Your task to perform on an android device: delete browsing data in the chrome app Image 0: 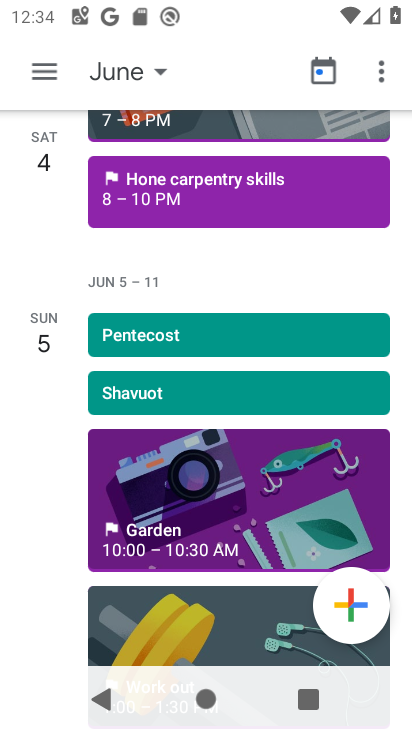
Step 0: press home button
Your task to perform on an android device: delete browsing data in the chrome app Image 1: 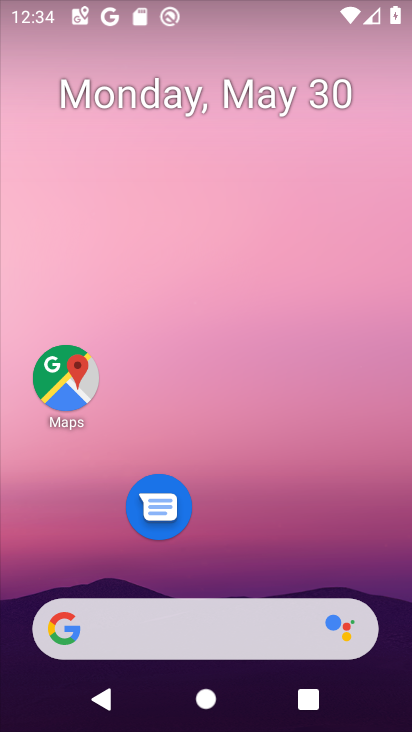
Step 1: drag from (293, 561) to (223, 67)
Your task to perform on an android device: delete browsing data in the chrome app Image 2: 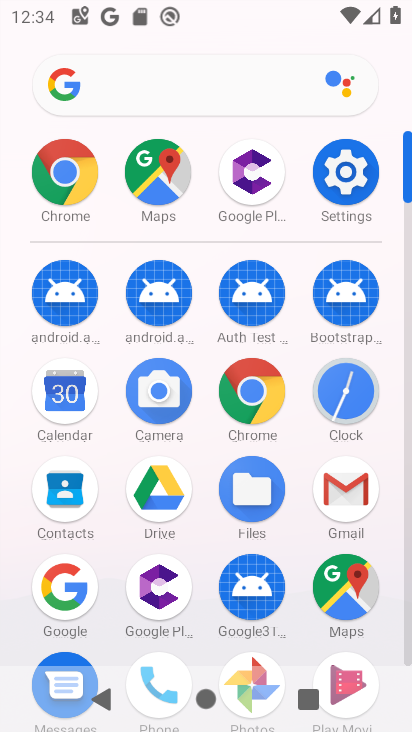
Step 2: click (248, 391)
Your task to perform on an android device: delete browsing data in the chrome app Image 3: 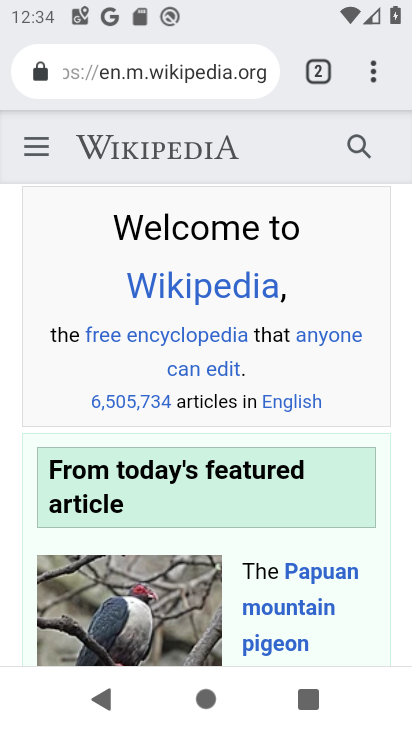
Step 3: drag from (369, 71) to (145, 491)
Your task to perform on an android device: delete browsing data in the chrome app Image 4: 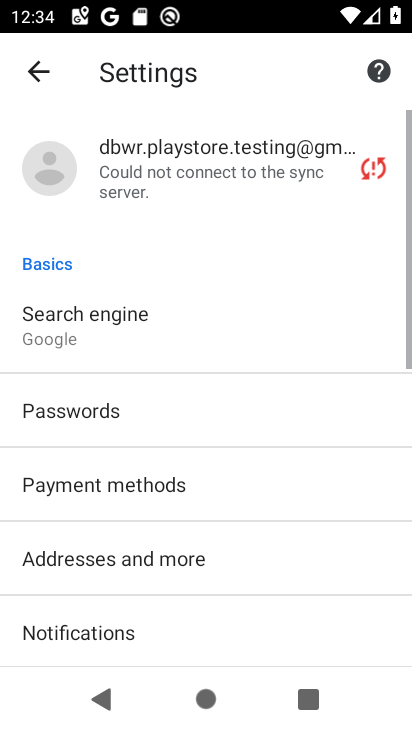
Step 4: drag from (246, 610) to (267, 170)
Your task to perform on an android device: delete browsing data in the chrome app Image 5: 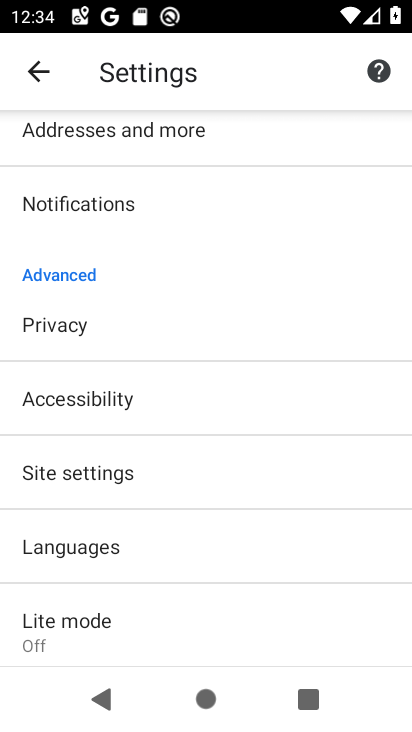
Step 5: click (52, 321)
Your task to perform on an android device: delete browsing data in the chrome app Image 6: 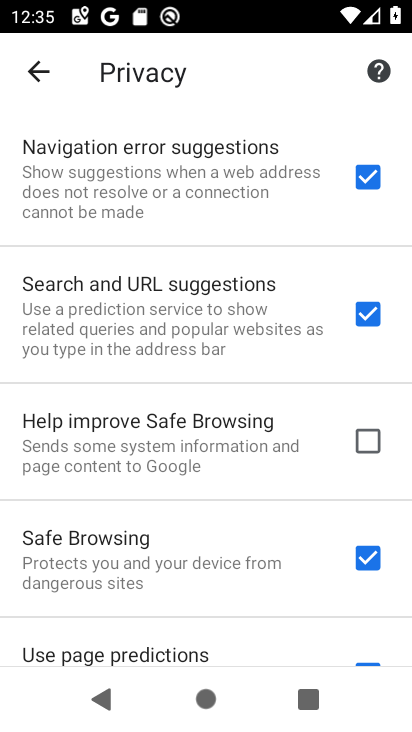
Step 6: drag from (203, 540) to (212, 105)
Your task to perform on an android device: delete browsing data in the chrome app Image 7: 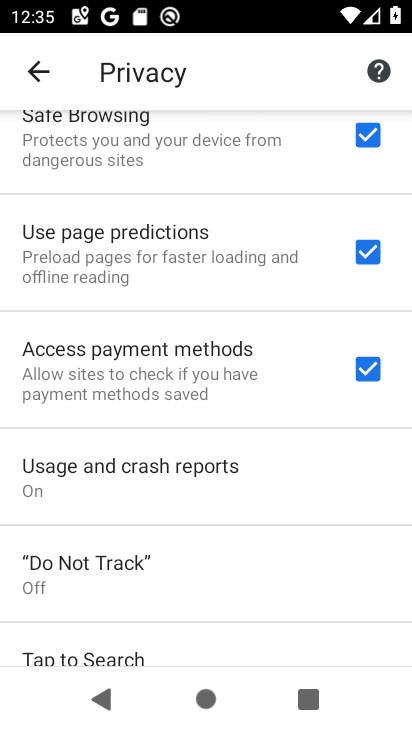
Step 7: drag from (198, 529) to (233, 83)
Your task to perform on an android device: delete browsing data in the chrome app Image 8: 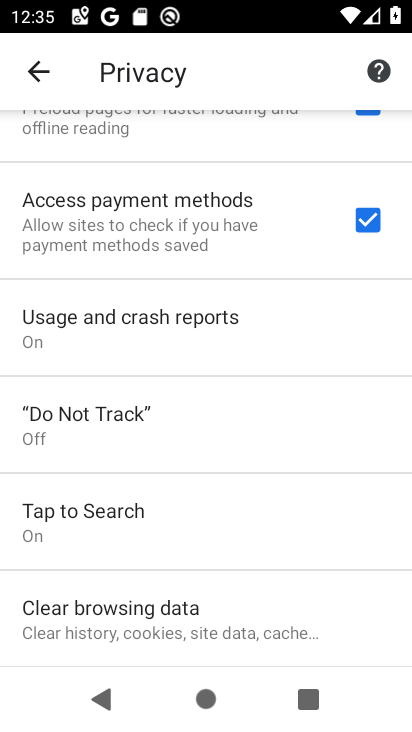
Step 8: click (165, 623)
Your task to perform on an android device: delete browsing data in the chrome app Image 9: 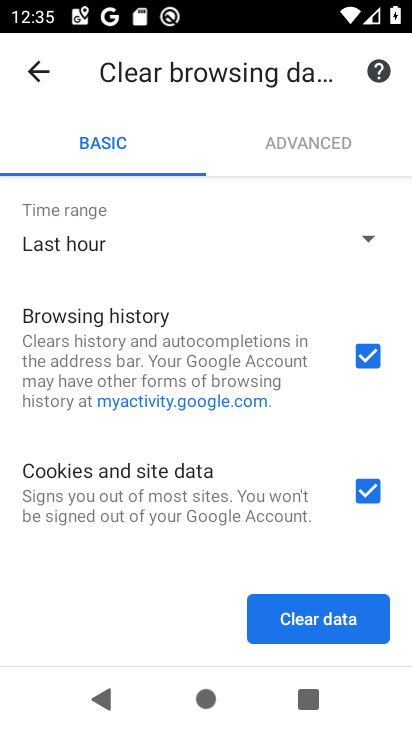
Step 9: click (333, 615)
Your task to perform on an android device: delete browsing data in the chrome app Image 10: 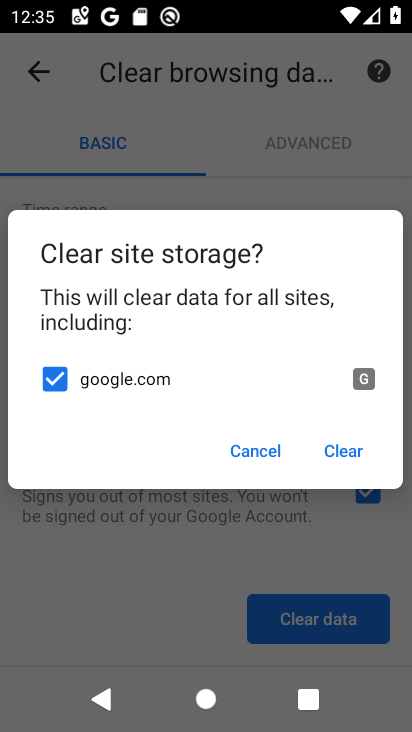
Step 10: click (336, 435)
Your task to perform on an android device: delete browsing data in the chrome app Image 11: 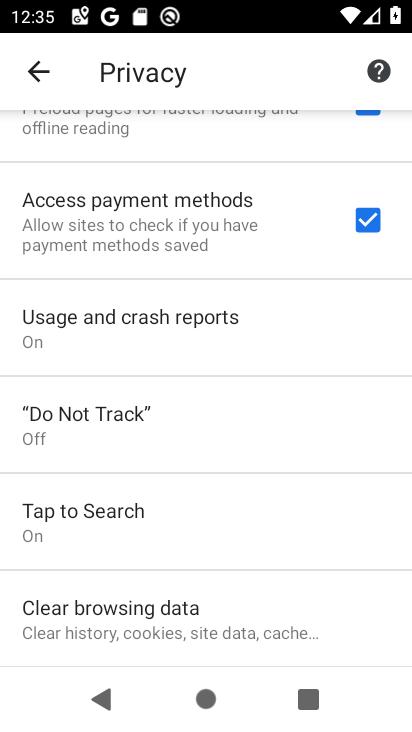
Step 11: task complete